Your task to perform on an android device: Go to notification settings Image 0: 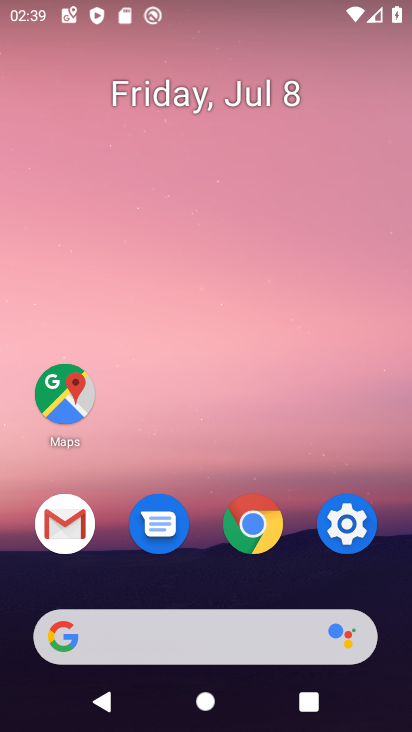
Step 0: click (358, 537)
Your task to perform on an android device: Go to notification settings Image 1: 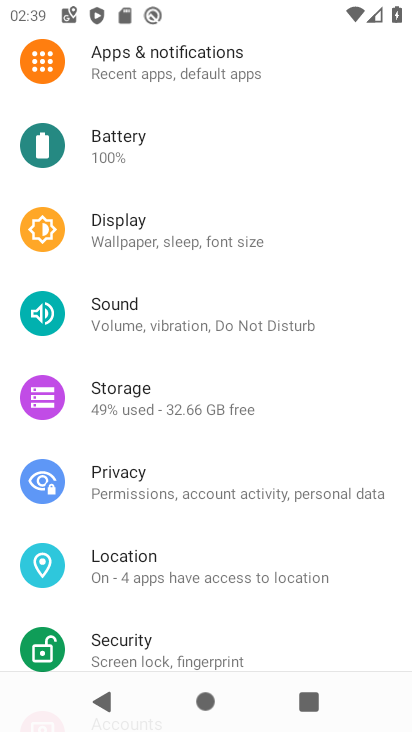
Step 1: drag from (154, 211) to (168, 310)
Your task to perform on an android device: Go to notification settings Image 2: 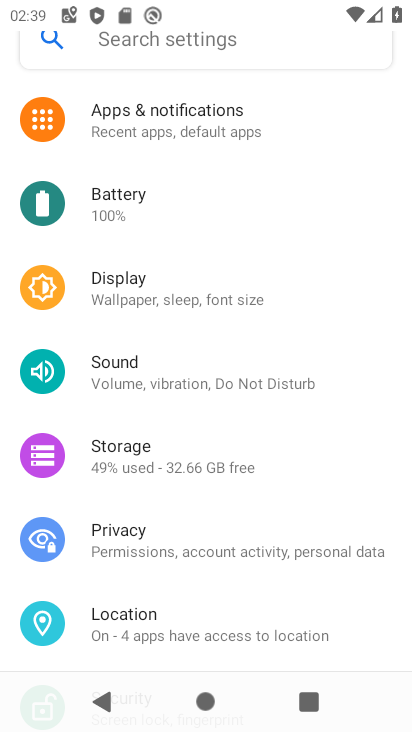
Step 2: click (188, 43)
Your task to perform on an android device: Go to notification settings Image 3: 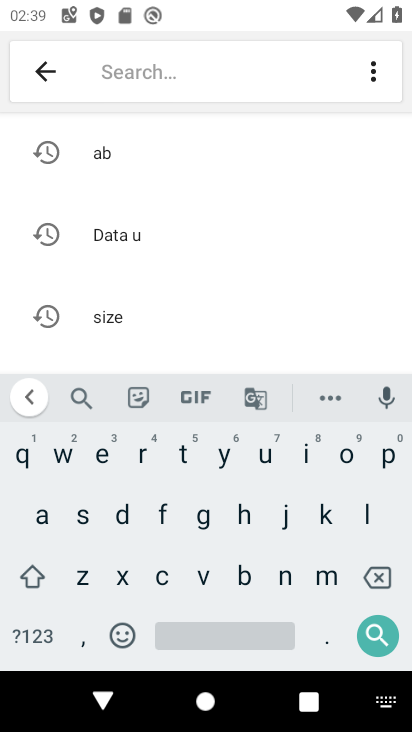
Step 3: click (283, 567)
Your task to perform on an android device: Go to notification settings Image 4: 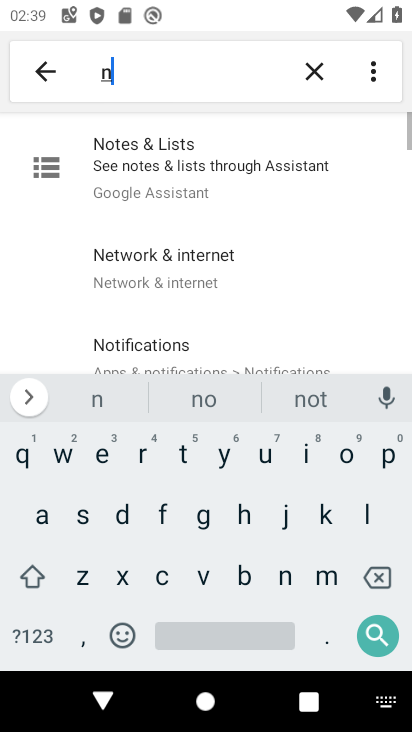
Step 4: click (346, 447)
Your task to perform on an android device: Go to notification settings Image 5: 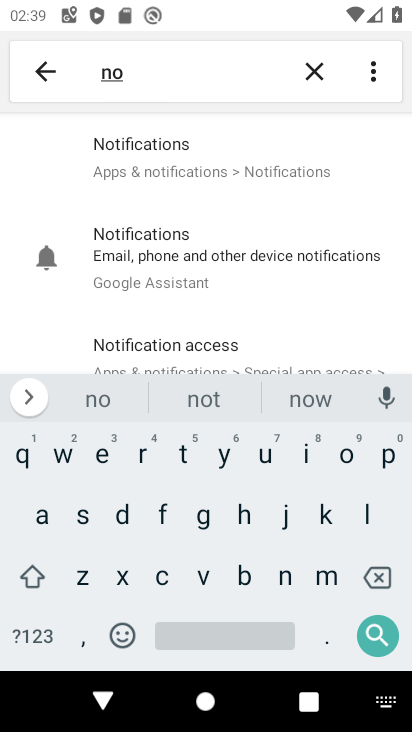
Step 5: click (180, 161)
Your task to perform on an android device: Go to notification settings Image 6: 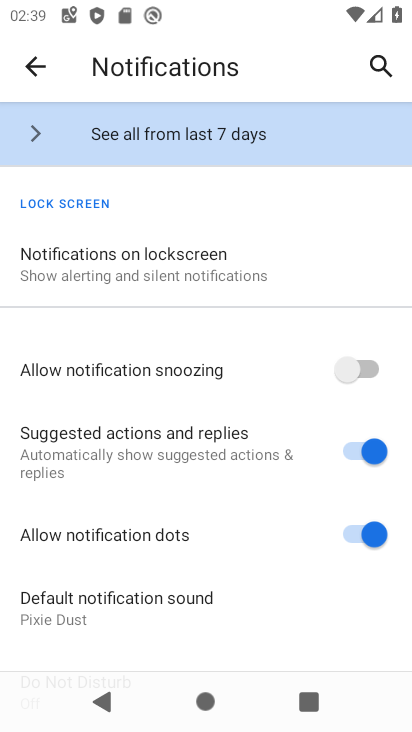
Step 6: click (121, 266)
Your task to perform on an android device: Go to notification settings Image 7: 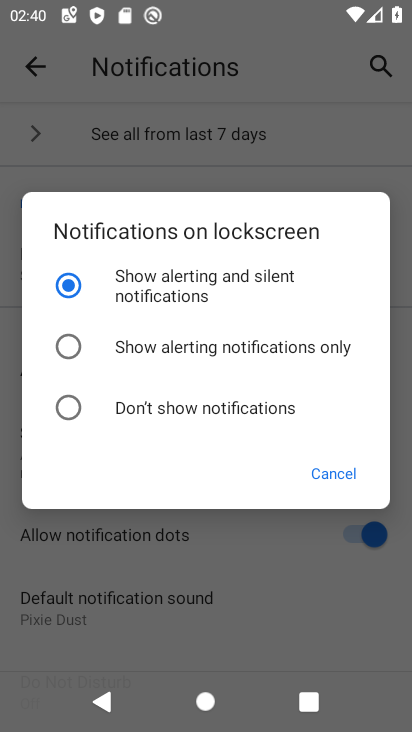
Step 7: task complete